Your task to perform on an android device: check out phone information Image 0: 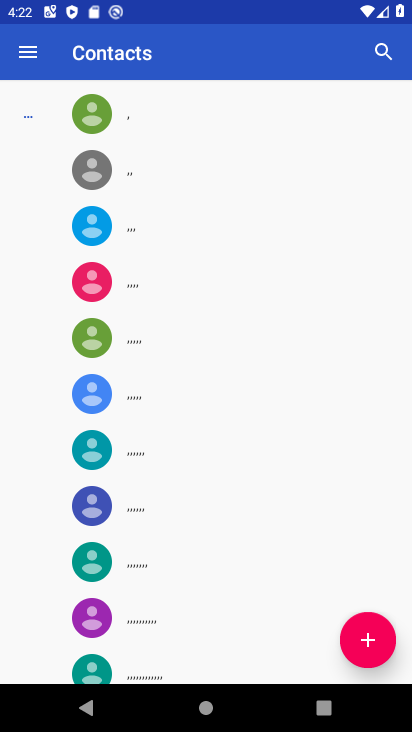
Step 0: press back button
Your task to perform on an android device: check out phone information Image 1: 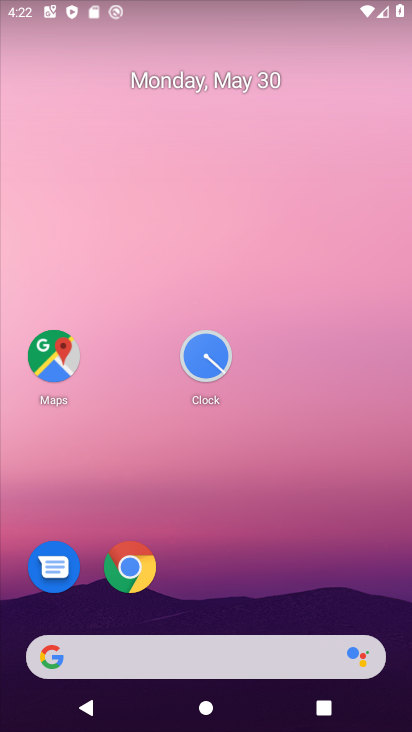
Step 1: drag from (272, 666) to (220, 17)
Your task to perform on an android device: check out phone information Image 2: 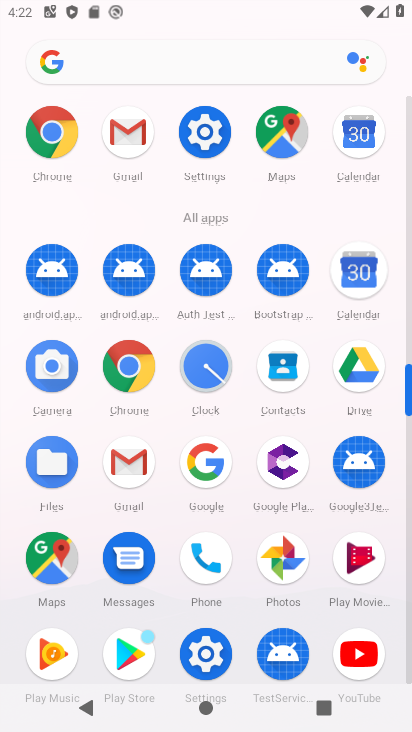
Step 2: drag from (281, 509) to (244, 162)
Your task to perform on an android device: check out phone information Image 3: 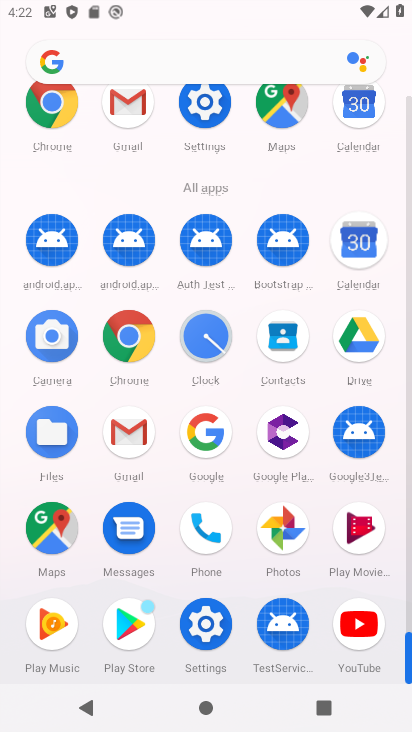
Step 3: click (193, 521)
Your task to perform on an android device: check out phone information Image 4: 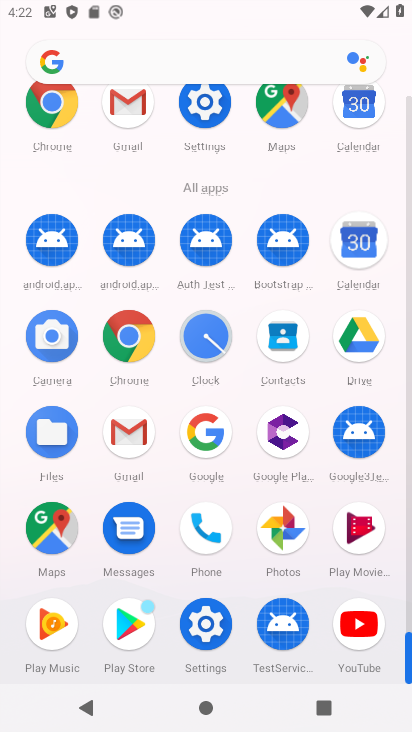
Step 4: click (193, 517)
Your task to perform on an android device: check out phone information Image 5: 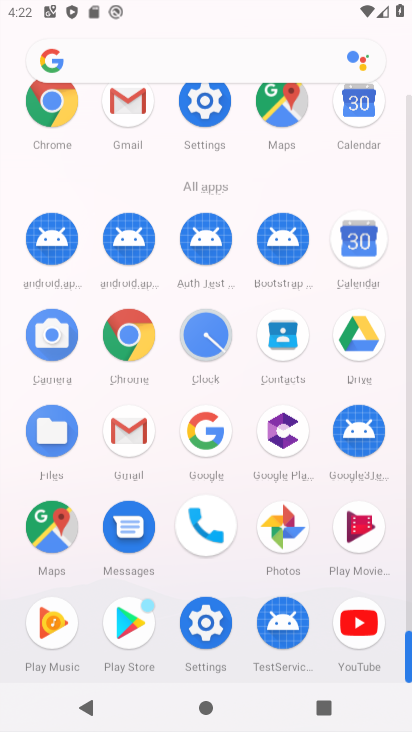
Step 5: click (193, 517)
Your task to perform on an android device: check out phone information Image 6: 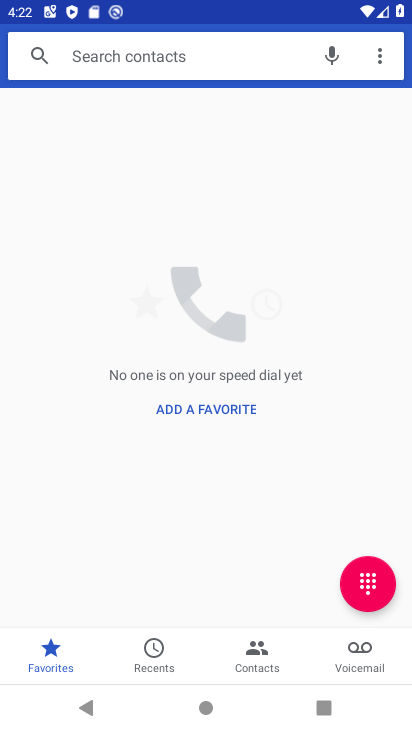
Step 6: press back button
Your task to perform on an android device: check out phone information Image 7: 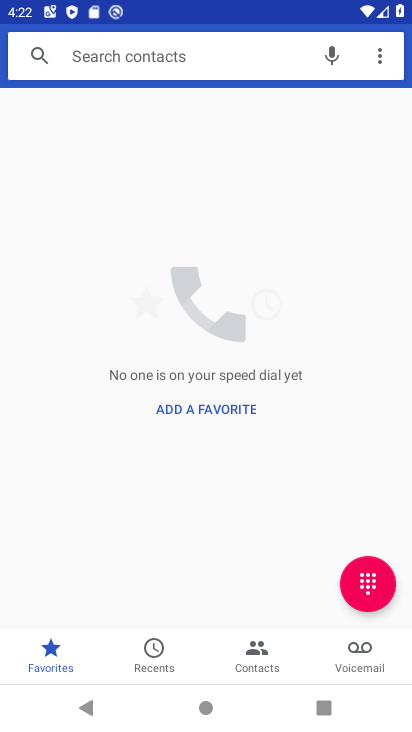
Step 7: press back button
Your task to perform on an android device: check out phone information Image 8: 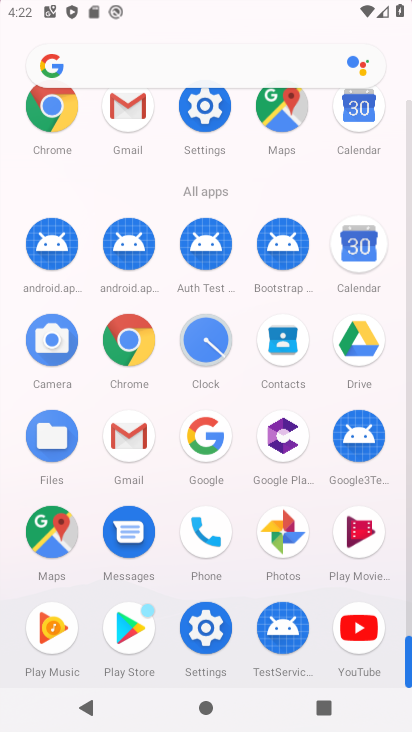
Step 8: press back button
Your task to perform on an android device: check out phone information Image 9: 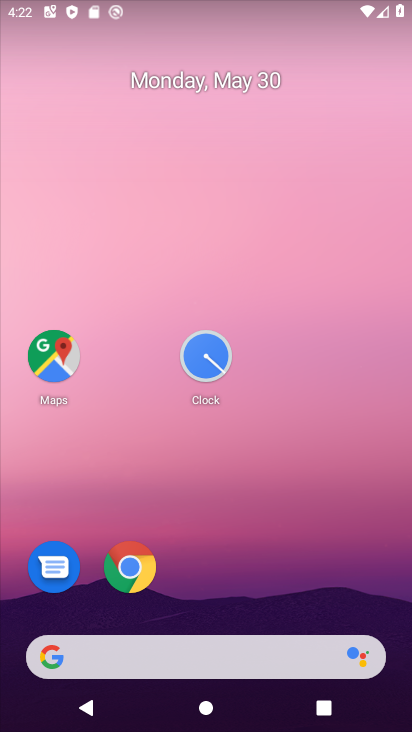
Step 9: drag from (136, 290) to (108, 130)
Your task to perform on an android device: check out phone information Image 10: 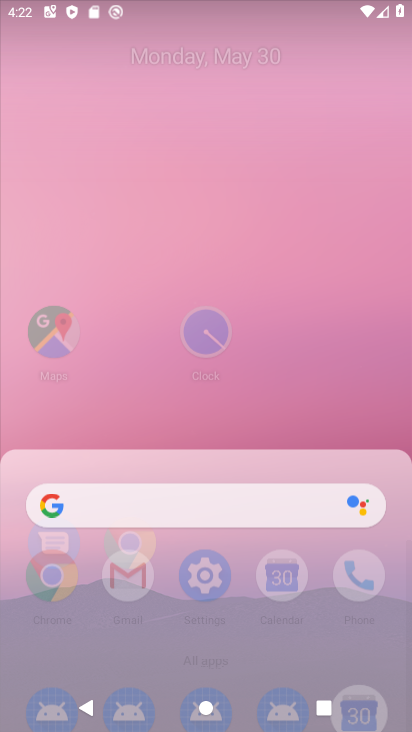
Step 10: drag from (230, 553) to (128, 214)
Your task to perform on an android device: check out phone information Image 11: 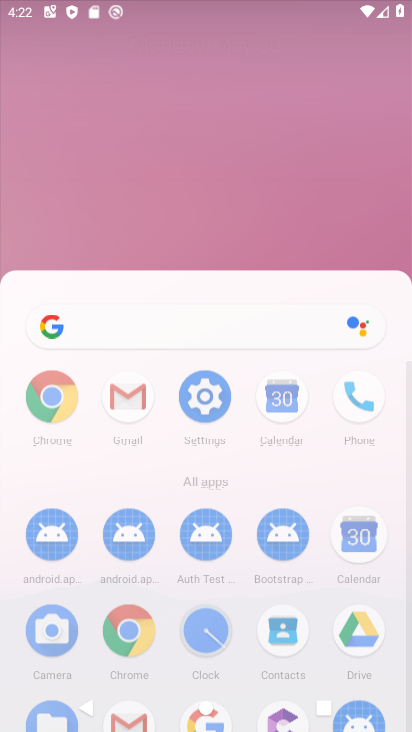
Step 11: drag from (254, 518) to (233, 37)
Your task to perform on an android device: check out phone information Image 12: 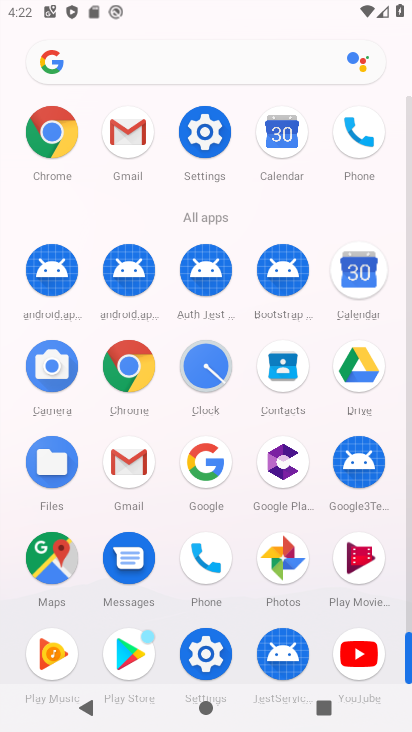
Step 12: click (218, 658)
Your task to perform on an android device: check out phone information Image 13: 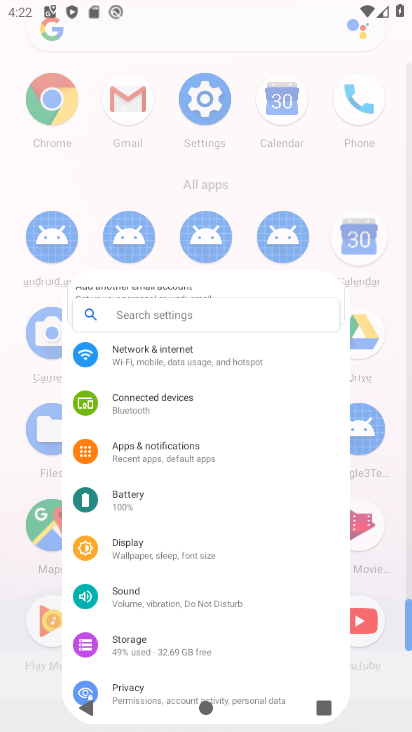
Step 13: click (200, 672)
Your task to perform on an android device: check out phone information Image 14: 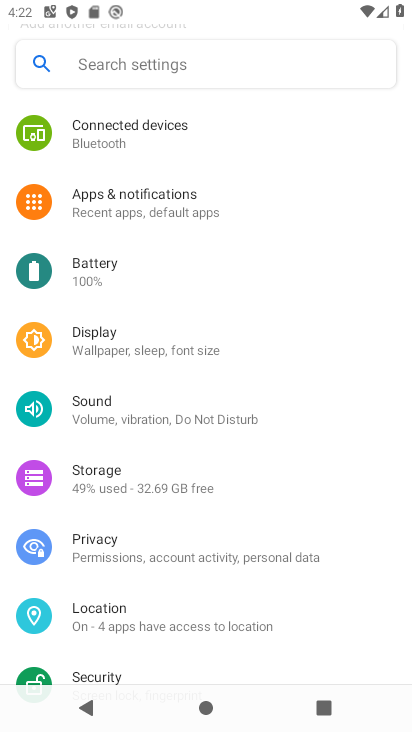
Step 14: click (193, 663)
Your task to perform on an android device: check out phone information Image 15: 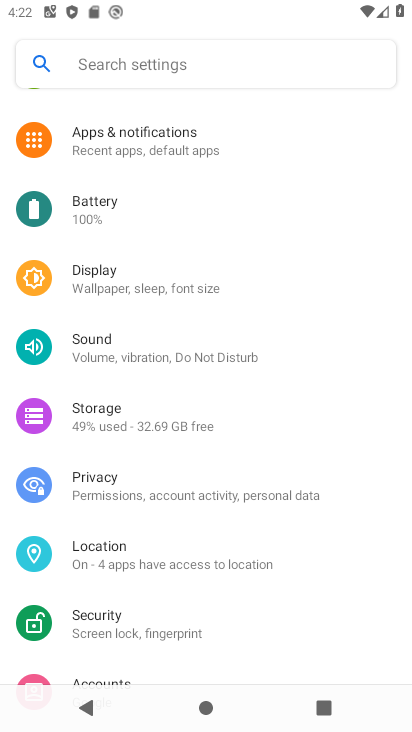
Step 15: click (193, 664)
Your task to perform on an android device: check out phone information Image 16: 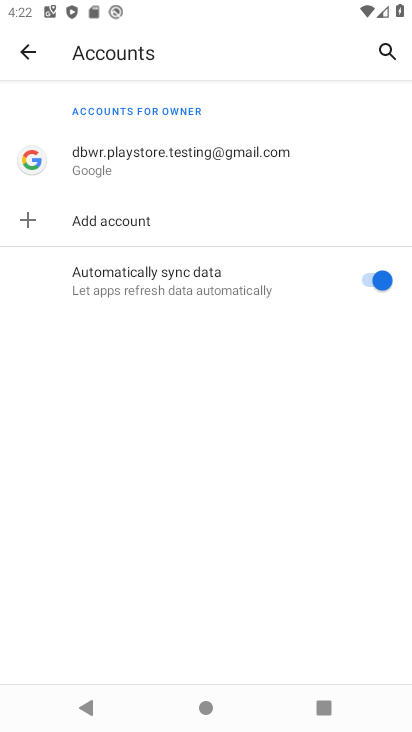
Step 16: click (103, 100)
Your task to perform on an android device: check out phone information Image 17: 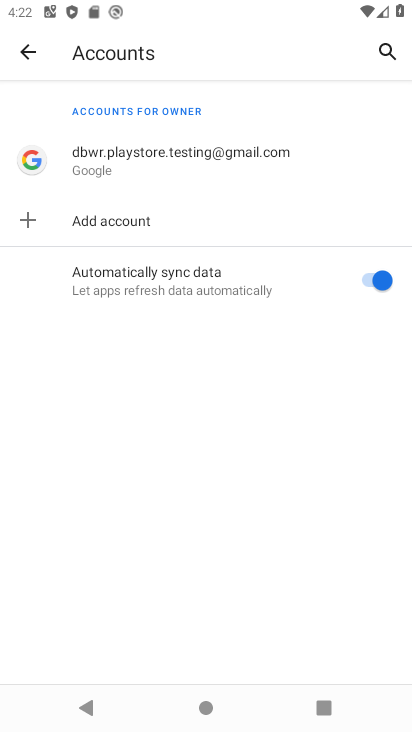
Step 17: drag from (130, 458) to (153, 62)
Your task to perform on an android device: check out phone information Image 18: 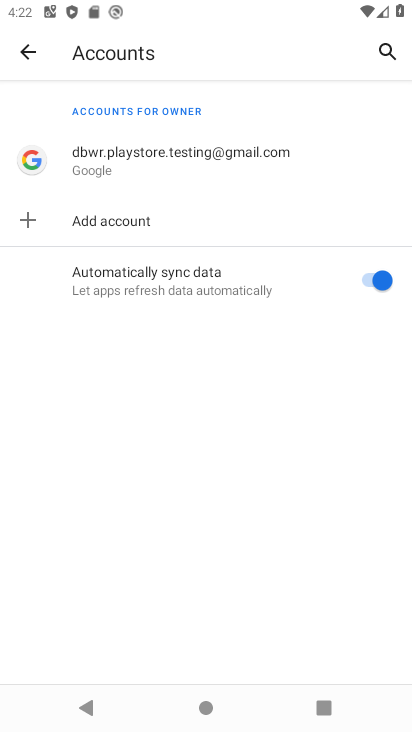
Step 18: click (17, 51)
Your task to perform on an android device: check out phone information Image 19: 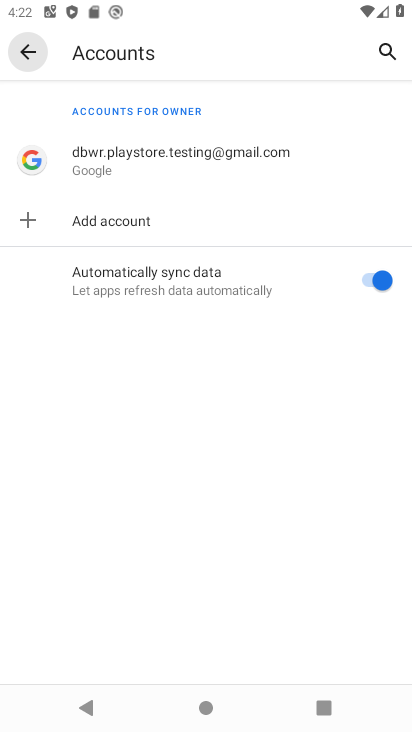
Step 19: click (20, 53)
Your task to perform on an android device: check out phone information Image 20: 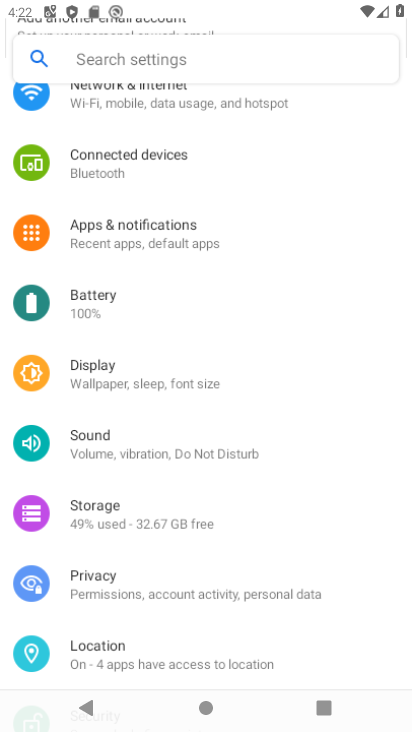
Step 20: click (20, 53)
Your task to perform on an android device: check out phone information Image 21: 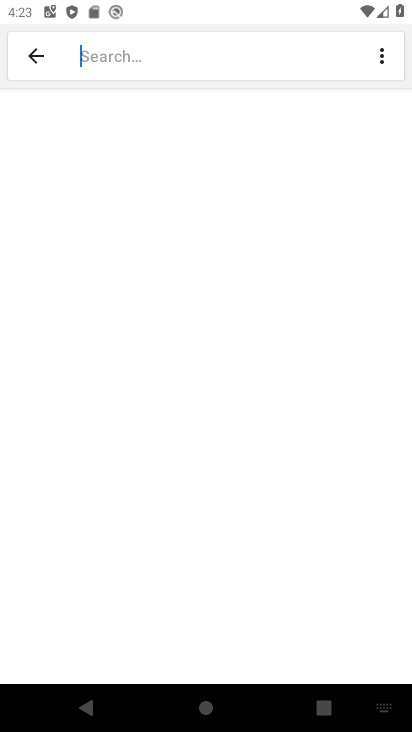
Step 21: click (29, 53)
Your task to perform on an android device: check out phone information Image 22: 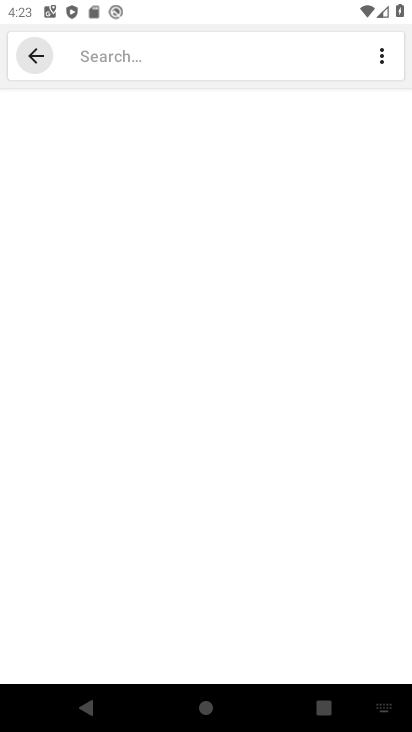
Step 22: click (34, 53)
Your task to perform on an android device: check out phone information Image 23: 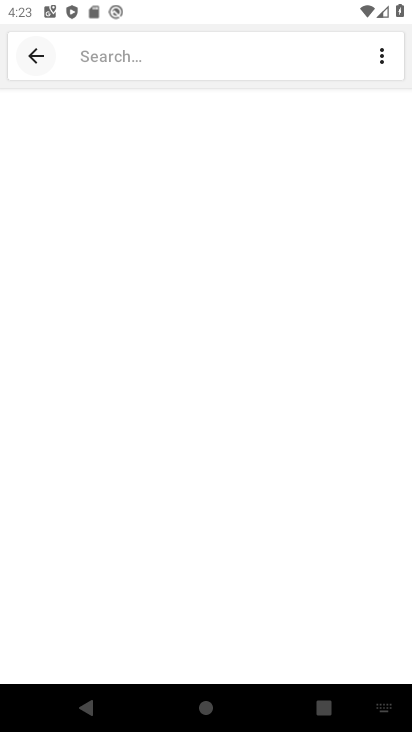
Step 23: click (34, 53)
Your task to perform on an android device: check out phone information Image 24: 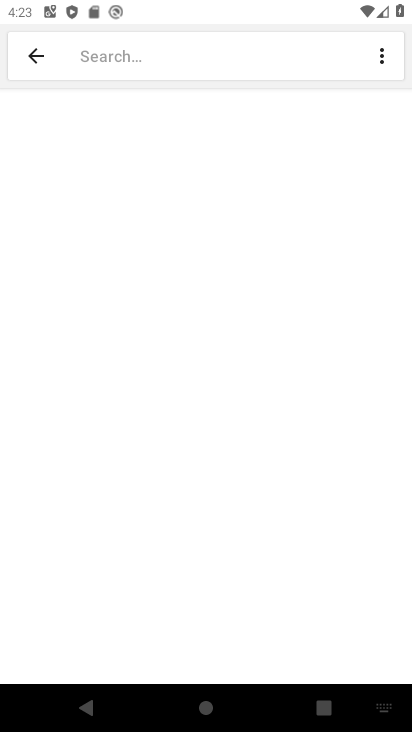
Step 24: drag from (128, 310) to (157, 514)
Your task to perform on an android device: check out phone information Image 25: 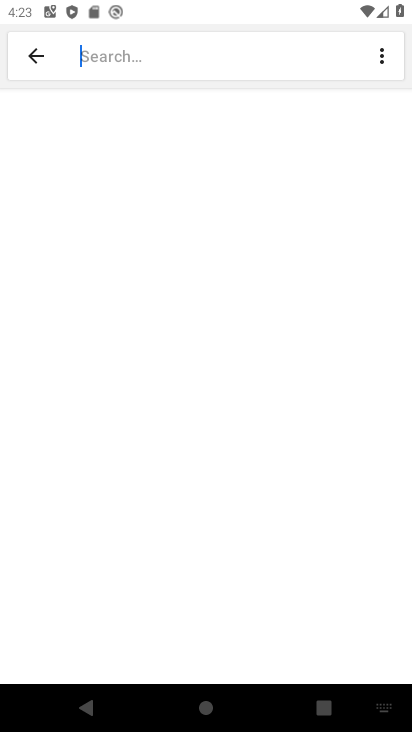
Step 25: drag from (146, 110) to (191, 440)
Your task to perform on an android device: check out phone information Image 26: 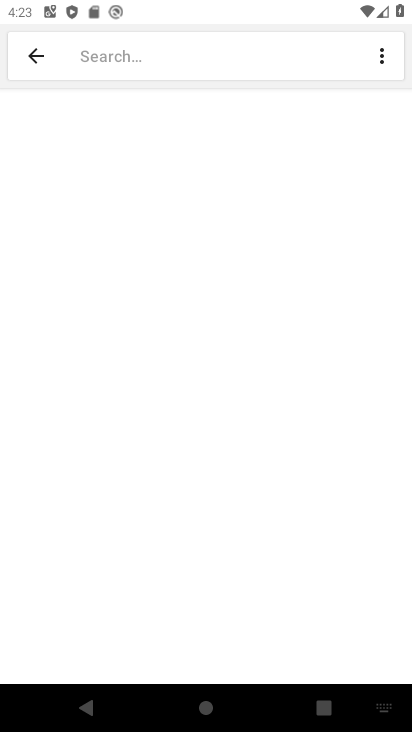
Step 26: drag from (199, 331) to (214, 411)
Your task to perform on an android device: check out phone information Image 27: 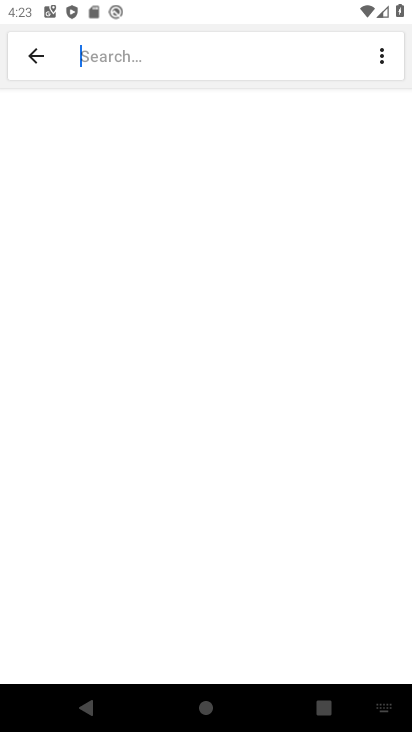
Step 27: click (187, 373)
Your task to perform on an android device: check out phone information Image 28: 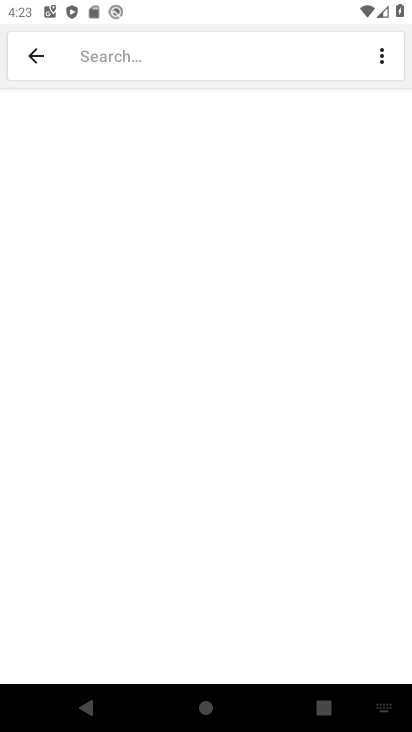
Step 28: click (29, 55)
Your task to perform on an android device: check out phone information Image 29: 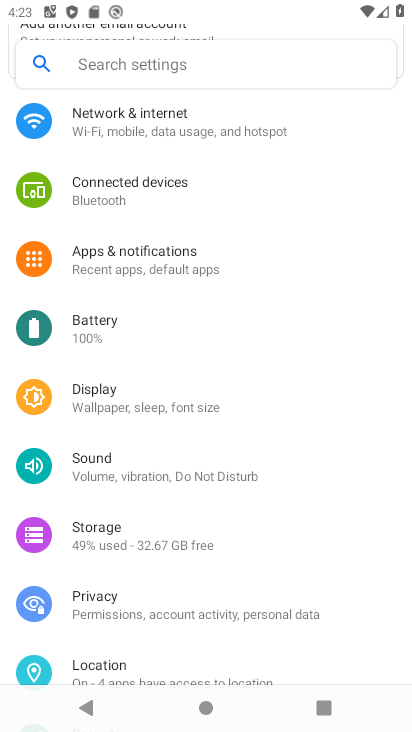
Step 29: drag from (115, 551) to (103, 257)
Your task to perform on an android device: check out phone information Image 30: 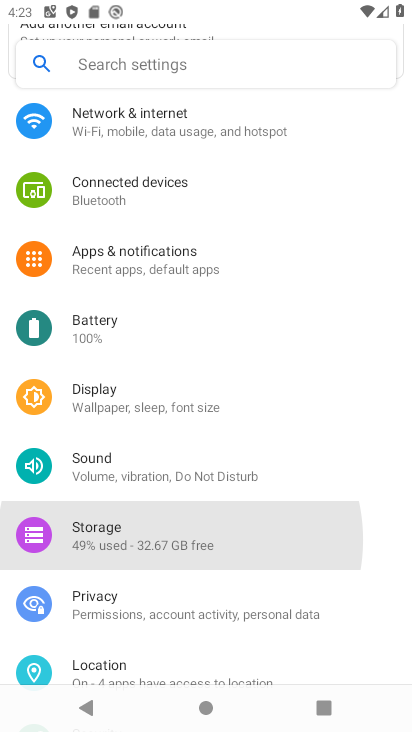
Step 30: drag from (194, 508) to (155, 117)
Your task to perform on an android device: check out phone information Image 31: 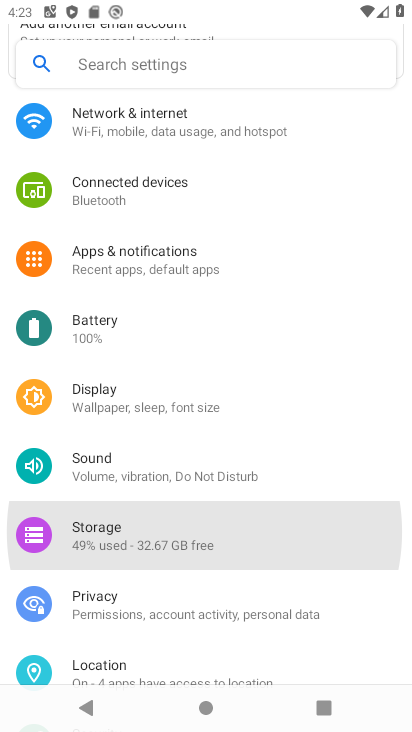
Step 31: drag from (182, 411) to (152, 129)
Your task to perform on an android device: check out phone information Image 32: 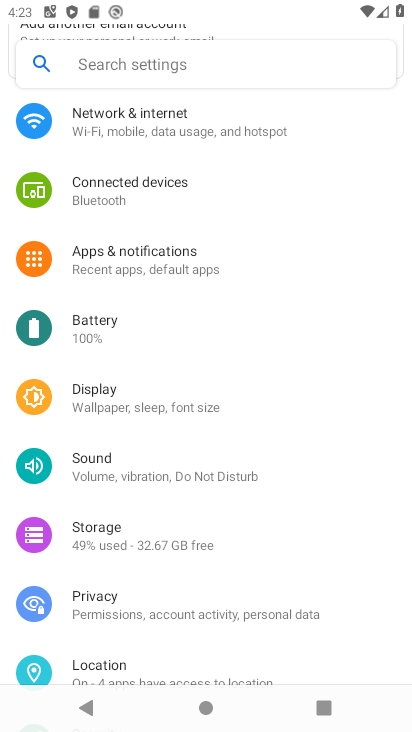
Step 32: drag from (152, 449) to (123, 201)
Your task to perform on an android device: check out phone information Image 33: 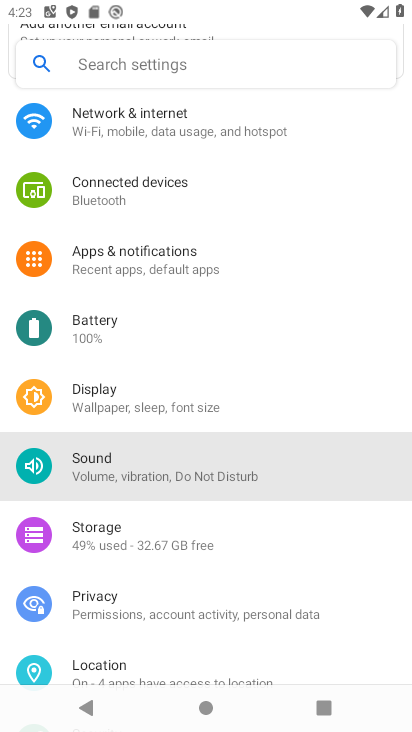
Step 33: drag from (183, 403) to (193, 101)
Your task to perform on an android device: check out phone information Image 34: 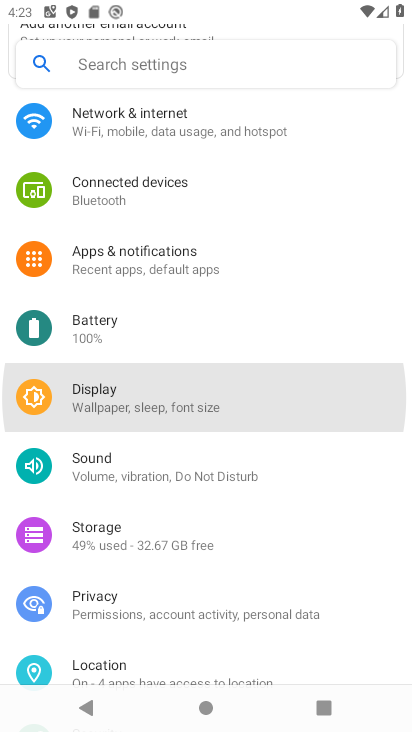
Step 34: drag from (171, 420) to (76, 53)
Your task to perform on an android device: check out phone information Image 35: 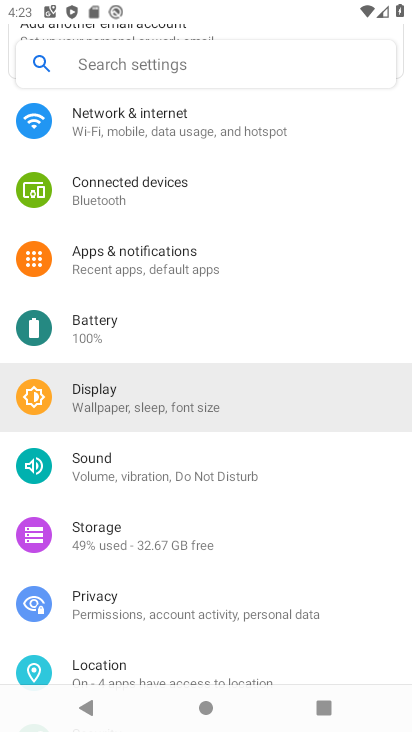
Step 35: drag from (84, 417) to (60, 123)
Your task to perform on an android device: check out phone information Image 36: 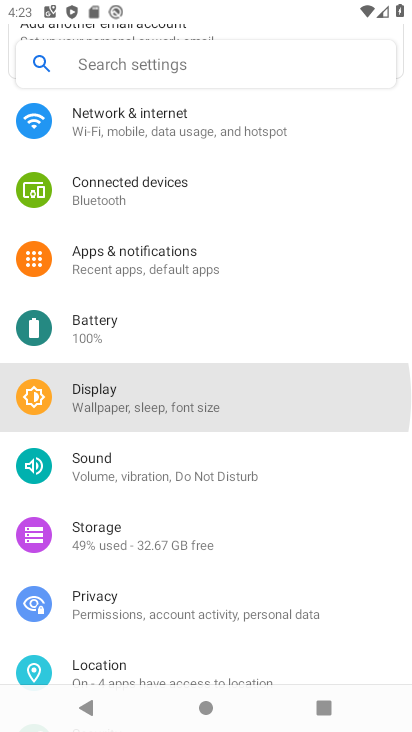
Step 36: drag from (118, 650) to (91, 117)
Your task to perform on an android device: check out phone information Image 37: 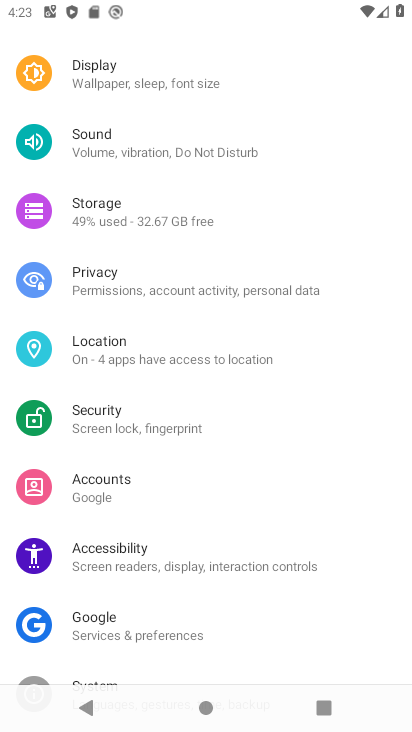
Step 37: drag from (118, 542) to (109, 233)
Your task to perform on an android device: check out phone information Image 38: 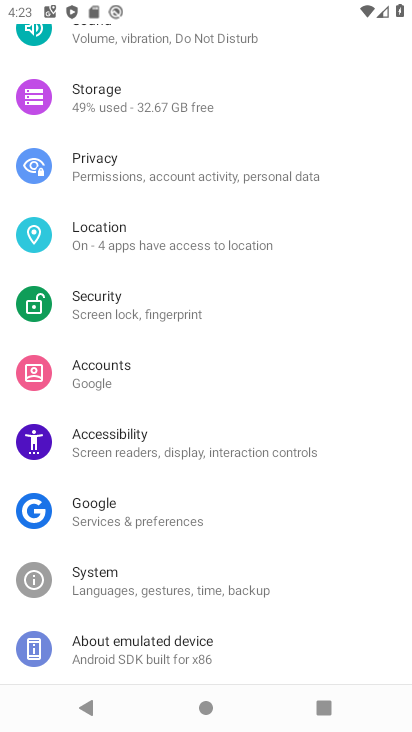
Step 38: drag from (96, 491) to (97, 291)
Your task to perform on an android device: check out phone information Image 39: 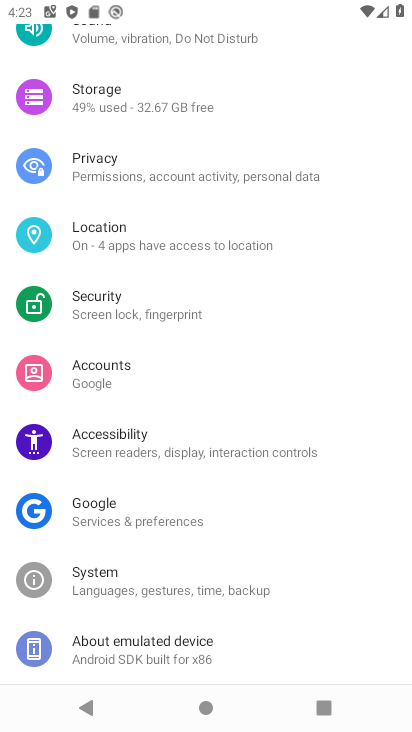
Step 39: click (144, 649)
Your task to perform on an android device: check out phone information Image 40: 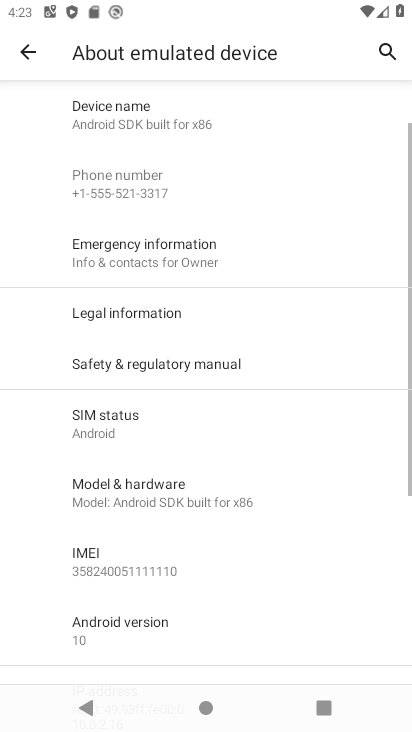
Step 40: click (34, 52)
Your task to perform on an android device: check out phone information Image 41: 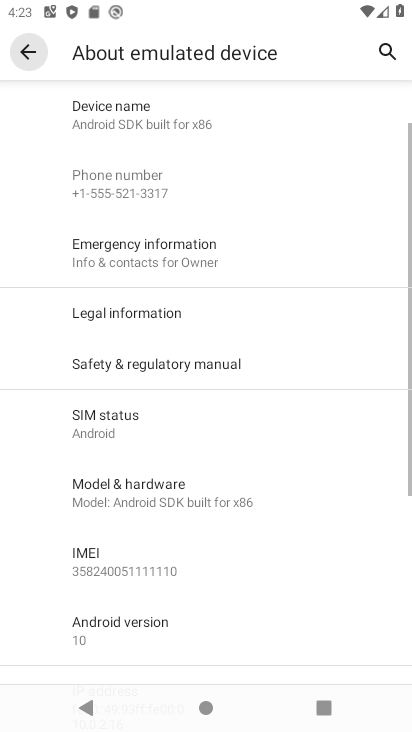
Step 41: click (28, 49)
Your task to perform on an android device: check out phone information Image 42: 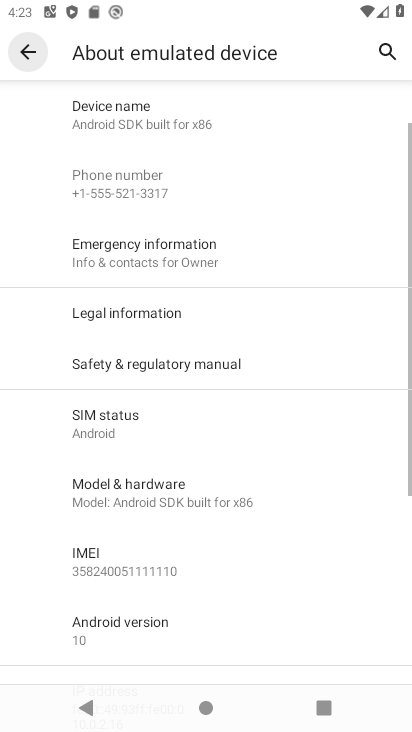
Step 42: click (32, 50)
Your task to perform on an android device: check out phone information Image 43: 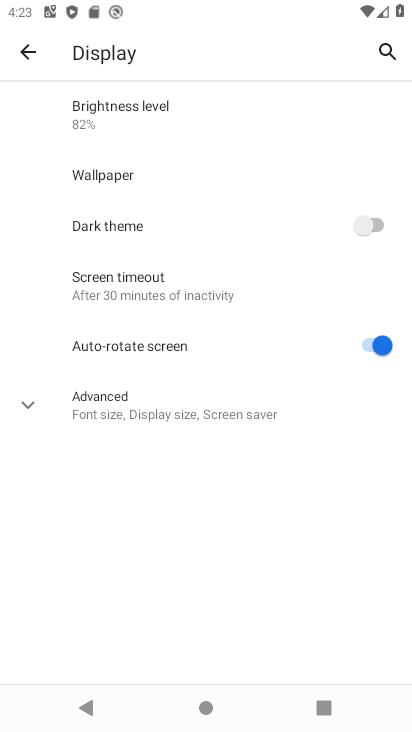
Step 43: click (32, 60)
Your task to perform on an android device: check out phone information Image 44: 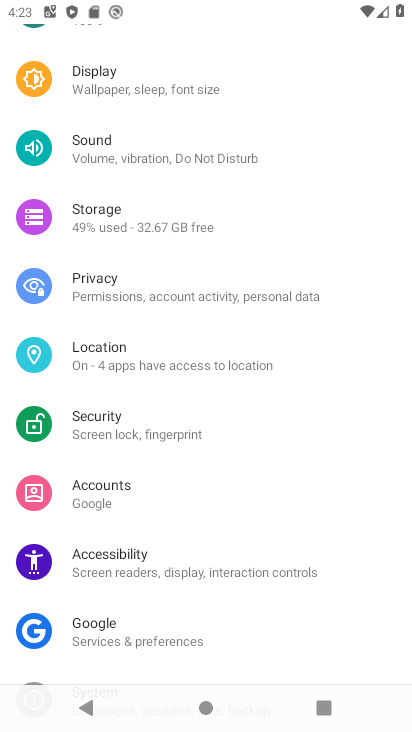
Step 44: click (124, 360)
Your task to perform on an android device: check out phone information Image 45: 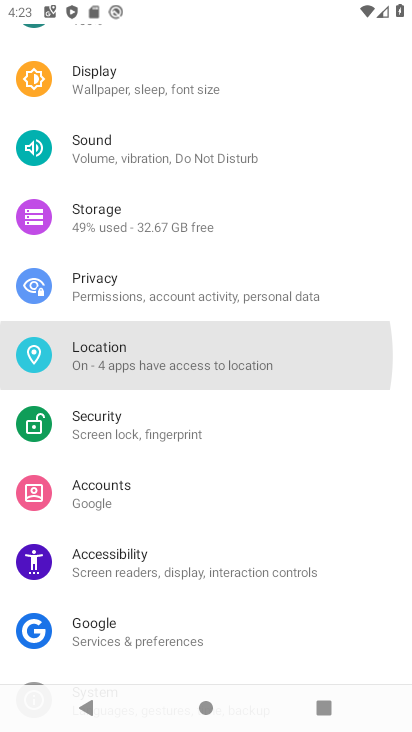
Step 45: click (116, 363)
Your task to perform on an android device: check out phone information Image 46: 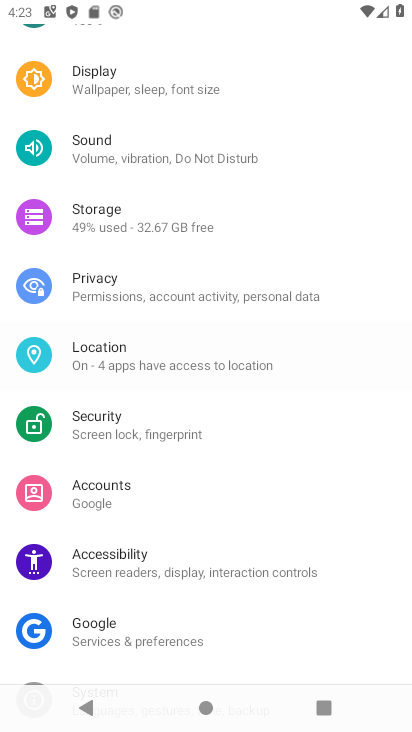
Step 46: click (116, 363)
Your task to perform on an android device: check out phone information Image 47: 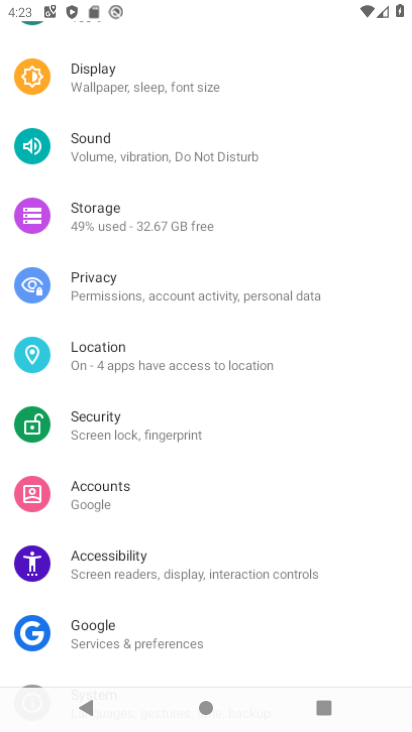
Step 47: click (116, 363)
Your task to perform on an android device: check out phone information Image 48: 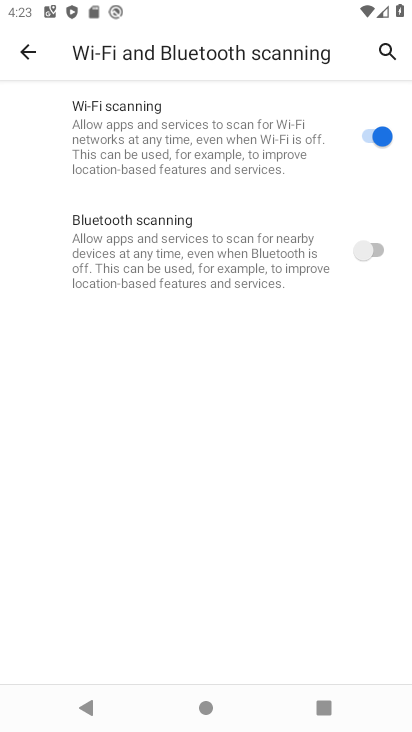
Step 48: click (11, 47)
Your task to perform on an android device: check out phone information Image 49: 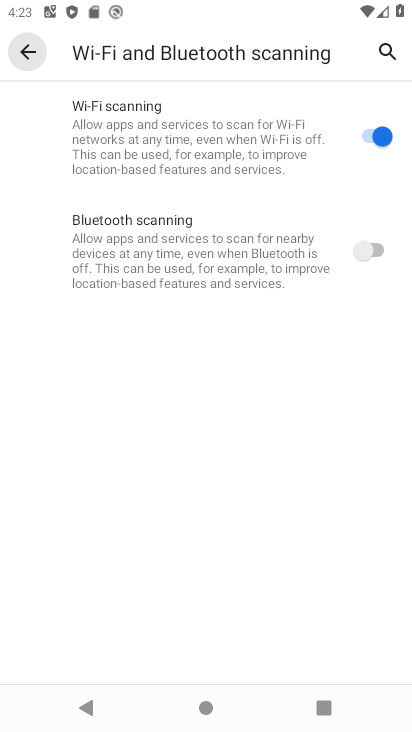
Step 49: click (18, 52)
Your task to perform on an android device: check out phone information Image 50: 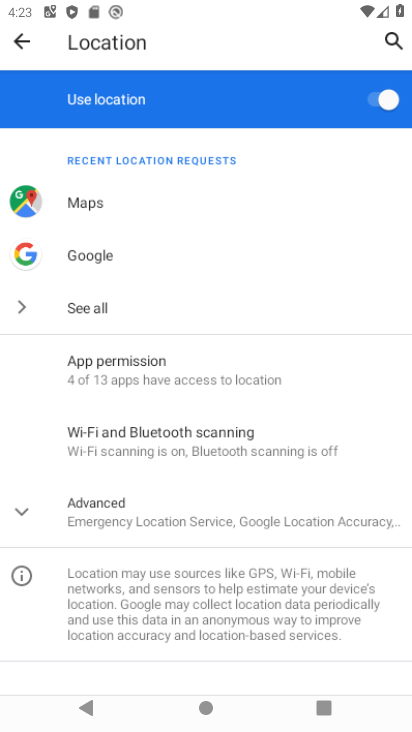
Step 50: click (20, 53)
Your task to perform on an android device: check out phone information Image 51: 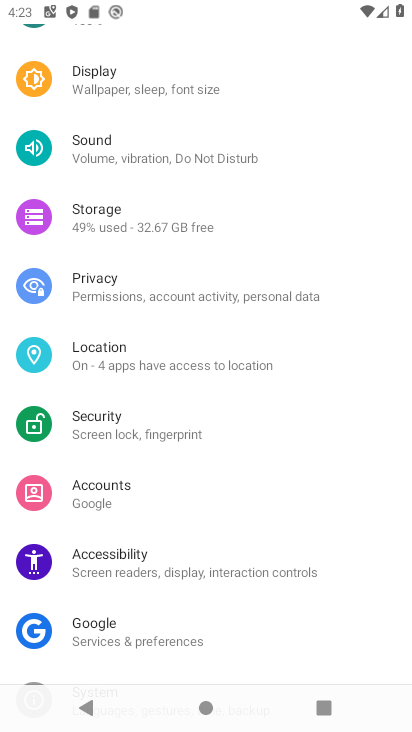
Step 51: task complete